Your task to perform on an android device: Open privacy settings Image 0: 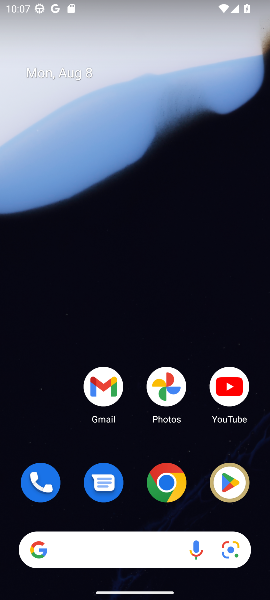
Step 0: drag from (69, 446) to (106, 6)
Your task to perform on an android device: Open privacy settings Image 1: 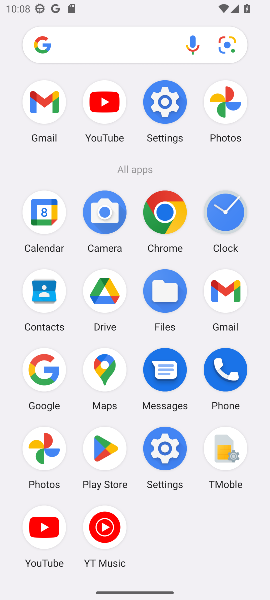
Step 1: click (162, 105)
Your task to perform on an android device: Open privacy settings Image 2: 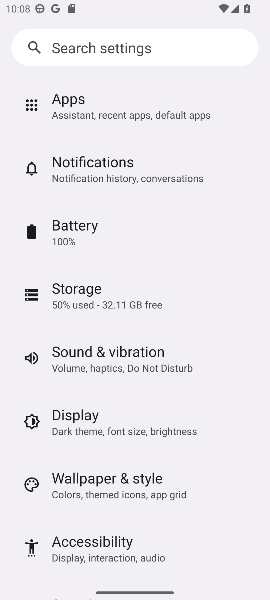
Step 2: drag from (58, 517) to (76, 259)
Your task to perform on an android device: Open privacy settings Image 3: 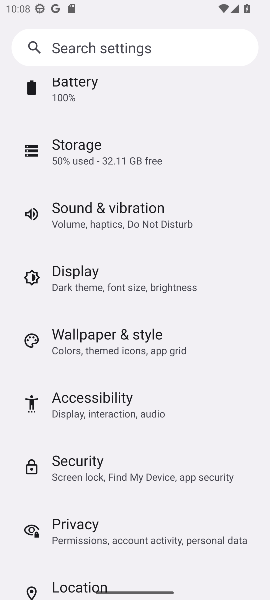
Step 3: click (93, 525)
Your task to perform on an android device: Open privacy settings Image 4: 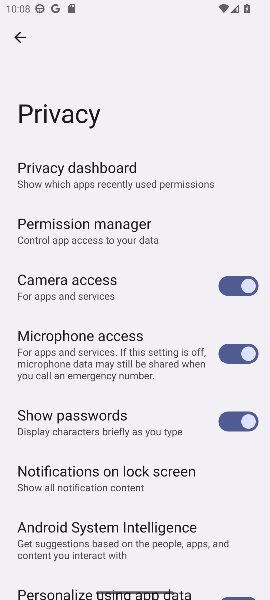
Step 4: task complete